Your task to perform on an android device: Open battery settings Image 0: 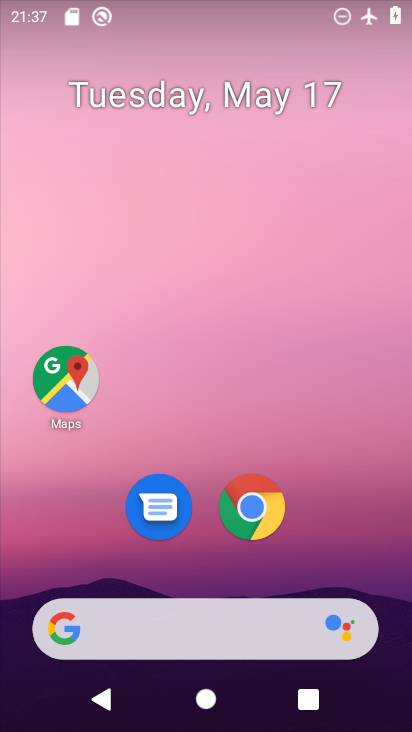
Step 0: drag from (346, 589) to (321, 5)
Your task to perform on an android device: Open battery settings Image 1: 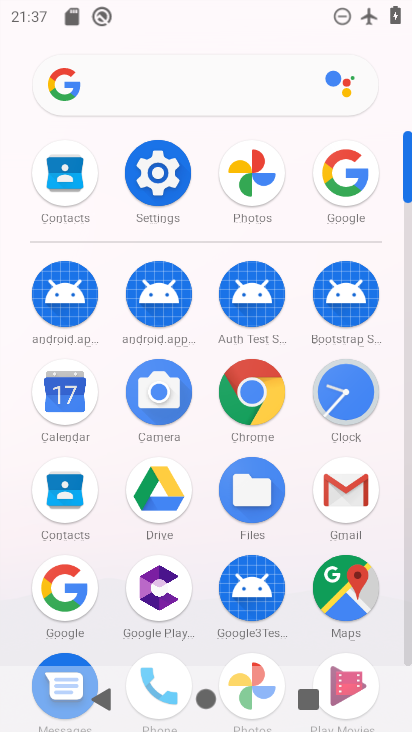
Step 1: click (153, 172)
Your task to perform on an android device: Open battery settings Image 2: 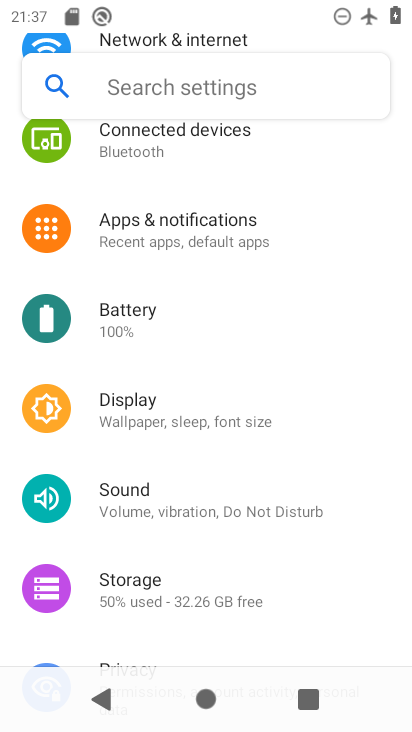
Step 2: click (139, 309)
Your task to perform on an android device: Open battery settings Image 3: 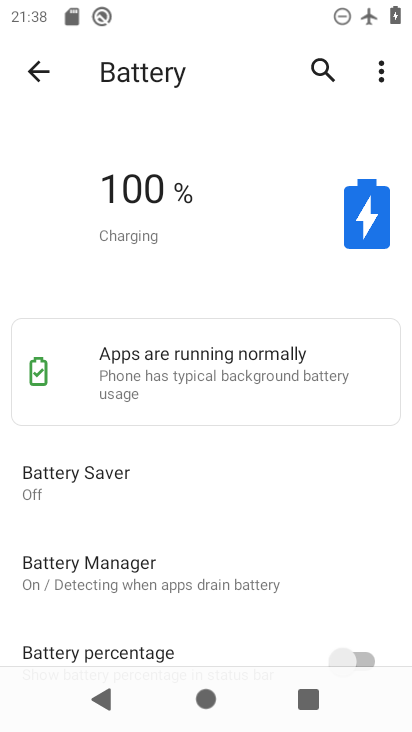
Step 3: task complete